Your task to perform on an android device: Do I have any events tomorrow? Image 0: 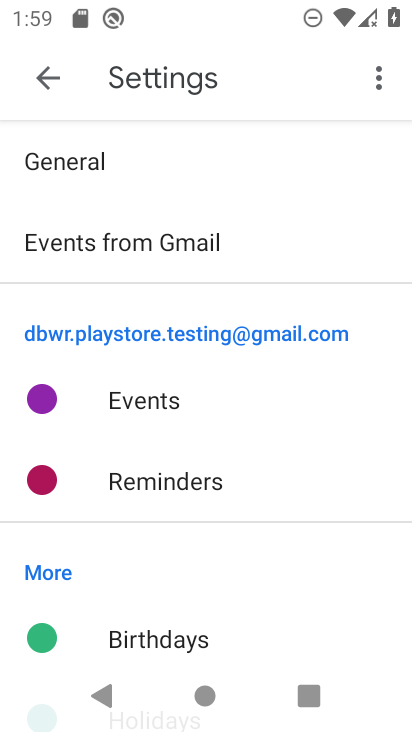
Step 0: press home button
Your task to perform on an android device: Do I have any events tomorrow? Image 1: 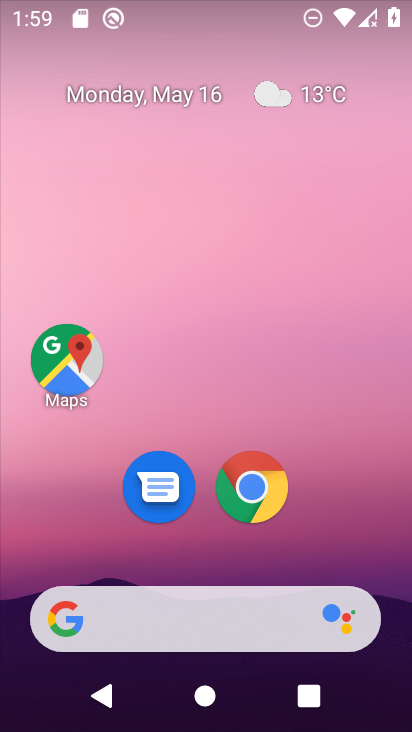
Step 1: drag from (391, 623) to (344, 255)
Your task to perform on an android device: Do I have any events tomorrow? Image 2: 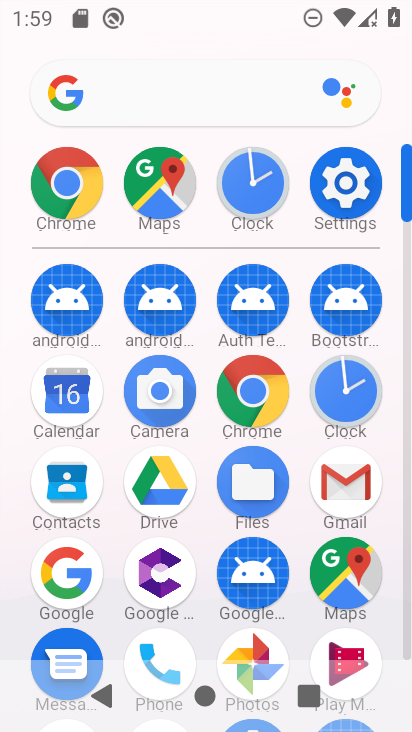
Step 2: click (68, 411)
Your task to perform on an android device: Do I have any events tomorrow? Image 3: 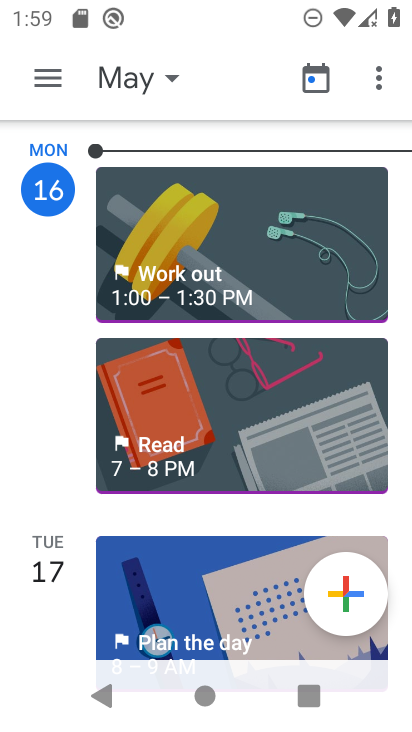
Step 3: click (56, 76)
Your task to perform on an android device: Do I have any events tomorrow? Image 4: 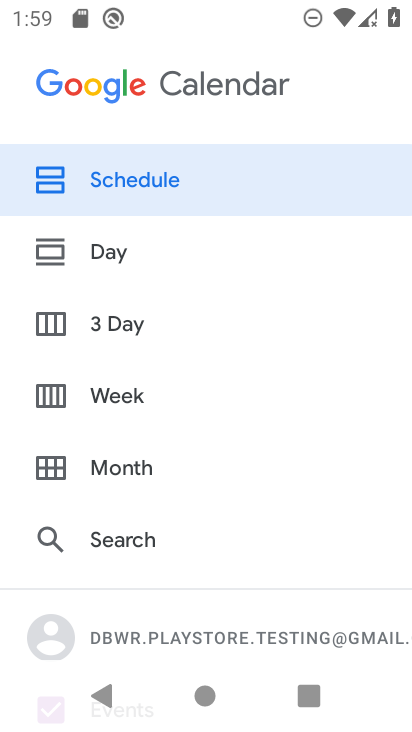
Step 4: drag from (253, 569) to (232, 398)
Your task to perform on an android device: Do I have any events tomorrow? Image 5: 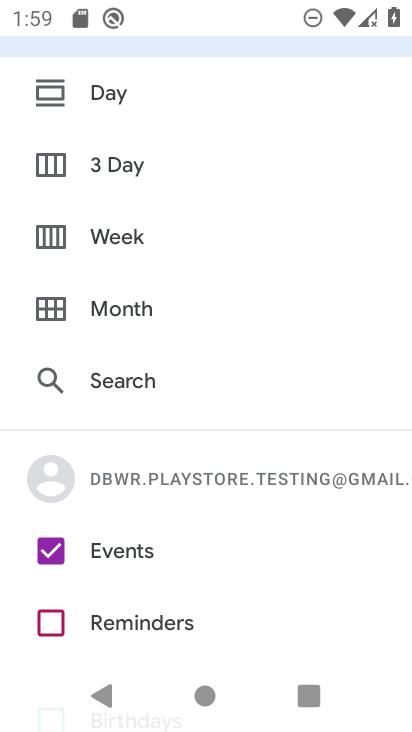
Step 5: drag from (206, 611) to (205, 384)
Your task to perform on an android device: Do I have any events tomorrow? Image 6: 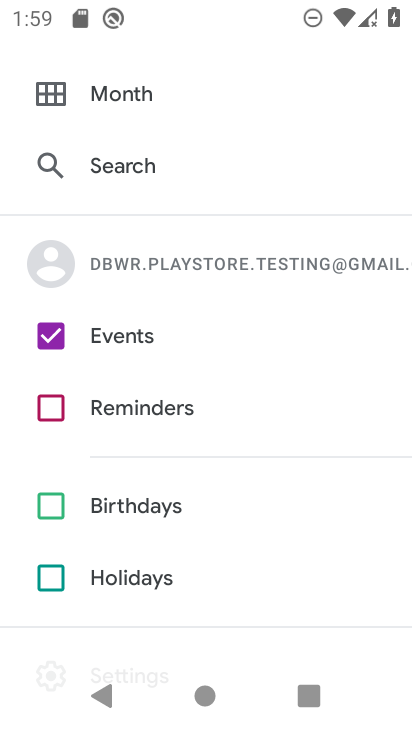
Step 6: drag from (267, 204) to (268, 391)
Your task to perform on an android device: Do I have any events tomorrow? Image 7: 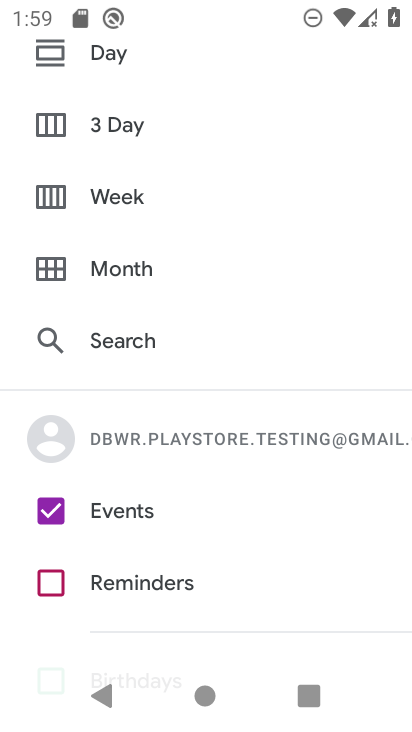
Step 7: drag from (265, 195) to (268, 388)
Your task to perform on an android device: Do I have any events tomorrow? Image 8: 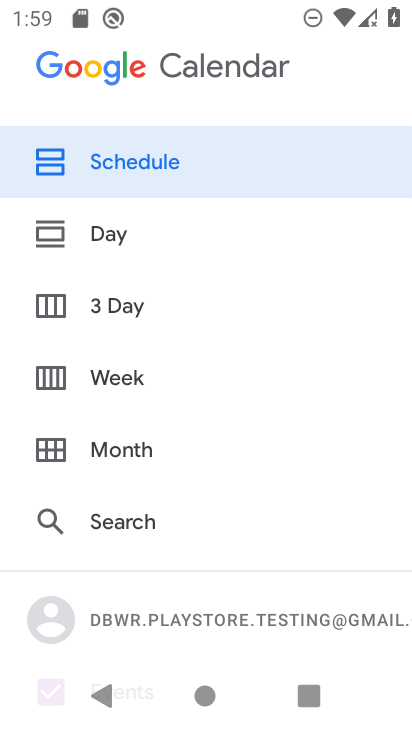
Step 8: click (105, 166)
Your task to perform on an android device: Do I have any events tomorrow? Image 9: 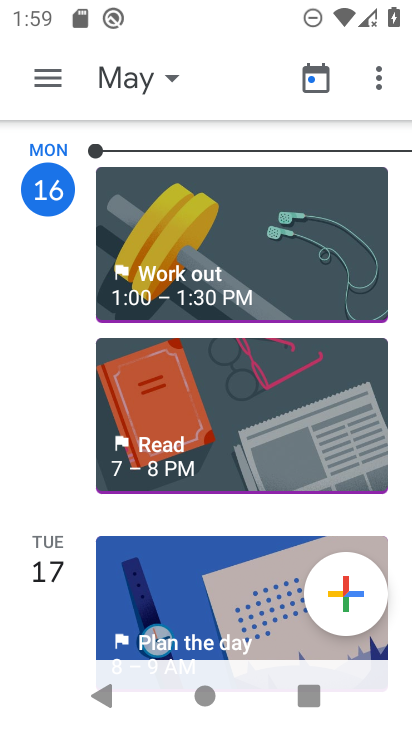
Step 9: click (164, 81)
Your task to perform on an android device: Do I have any events tomorrow? Image 10: 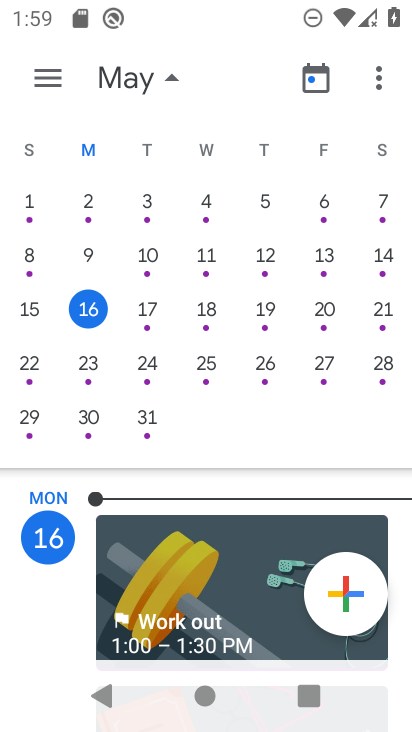
Step 10: click (145, 309)
Your task to perform on an android device: Do I have any events tomorrow? Image 11: 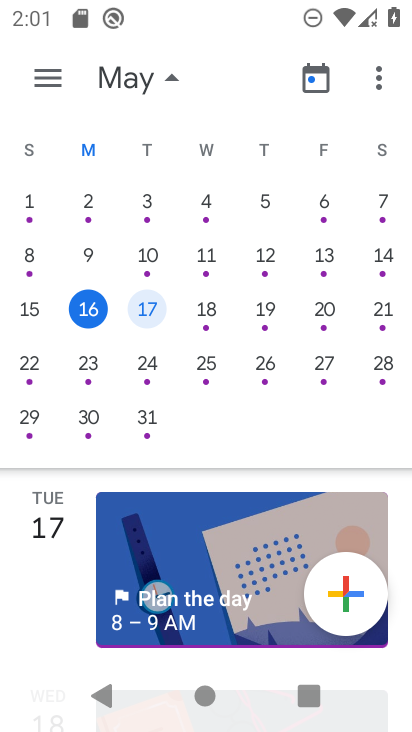
Step 11: task complete